Your task to perform on an android device: turn off javascript in the chrome app Image 0: 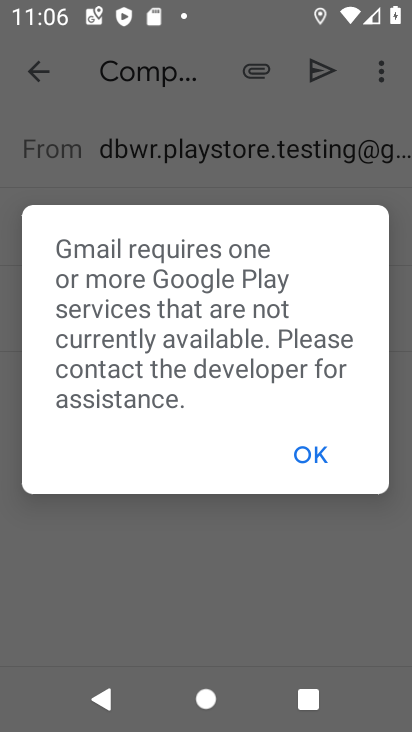
Step 0: click (322, 447)
Your task to perform on an android device: turn off javascript in the chrome app Image 1: 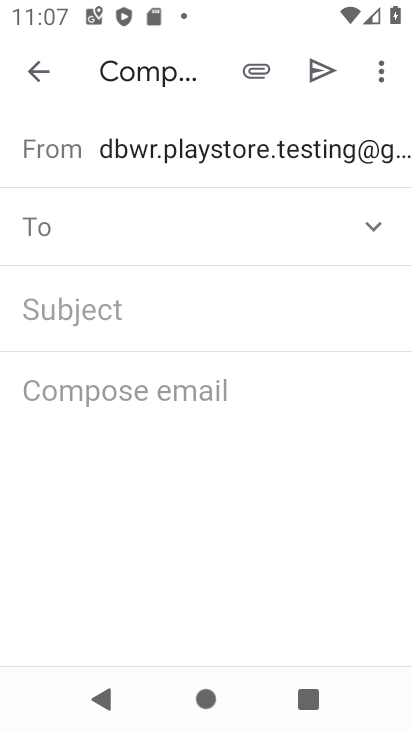
Step 1: press home button
Your task to perform on an android device: turn off javascript in the chrome app Image 2: 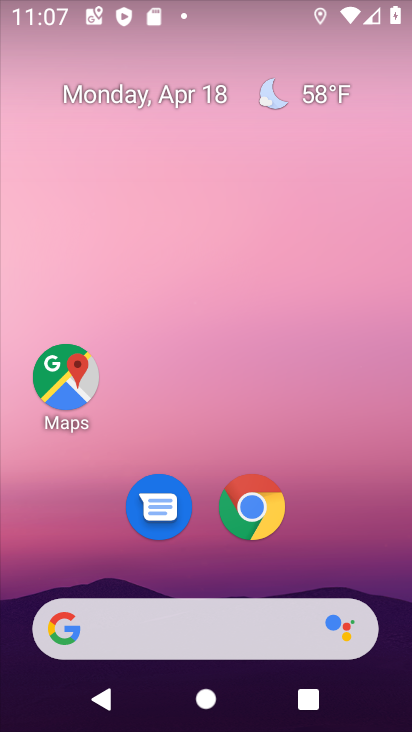
Step 2: click (263, 517)
Your task to perform on an android device: turn off javascript in the chrome app Image 3: 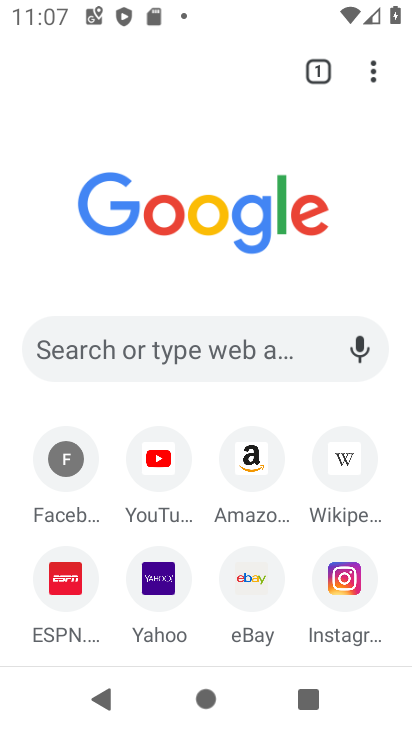
Step 3: click (374, 77)
Your task to perform on an android device: turn off javascript in the chrome app Image 4: 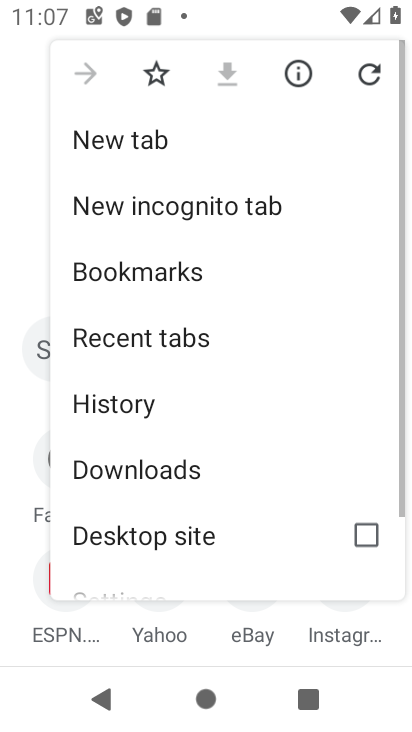
Step 4: drag from (171, 528) to (229, 43)
Your task to perform on an android device: turn off javascript in the chrome app Image 5: 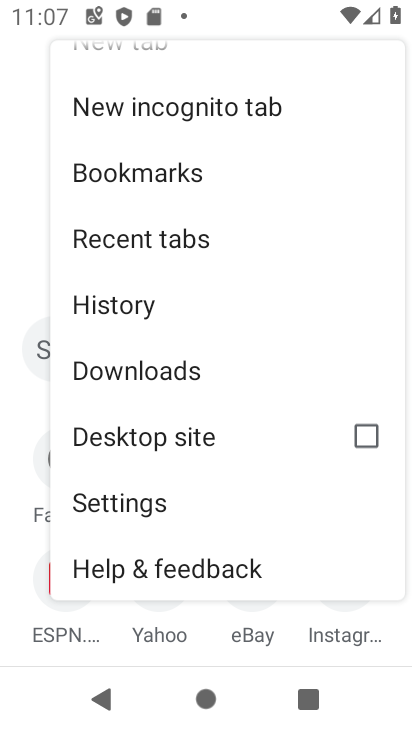
Step 5: click (117, 498)
Your task to perform on an android device: turn off javascript in the chrome app Image 6: 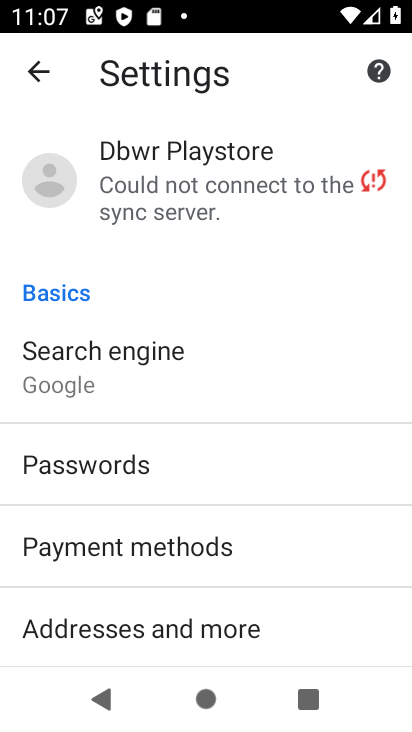
Step 6: drag from (131, 587) to (195, 203)
Your task to perform on an android device: turn off javascript in the chrome app Image 7: 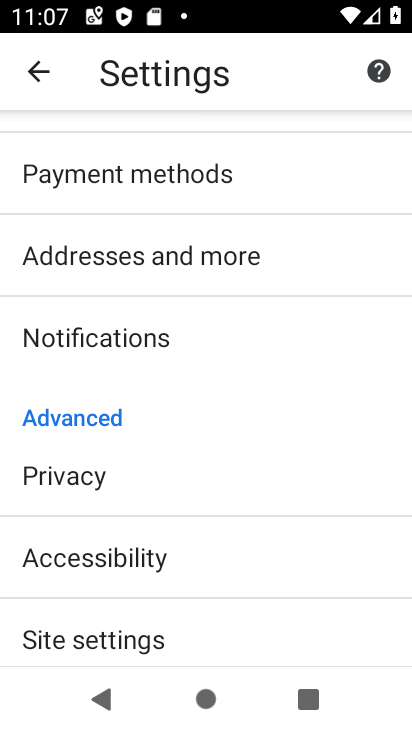
Step 7: drag from (115, 515) to (161, 272)
Your task to perform on an android device: turn off javascript in the chrome app Image 8: 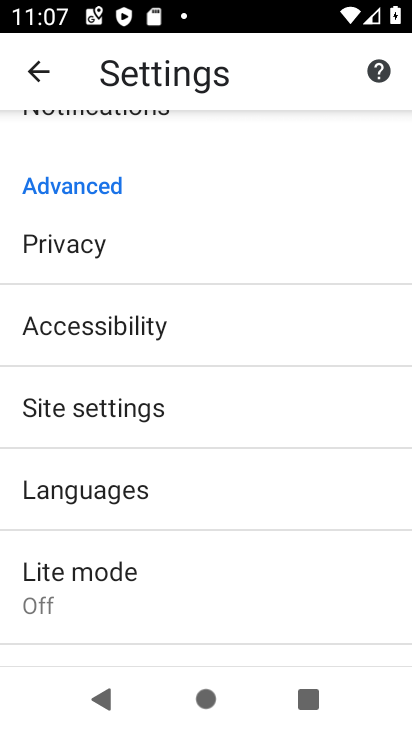
Step 8: click (106, 406)
Your task to perform on an android device: turn off javascript in the chrome app Image 9: 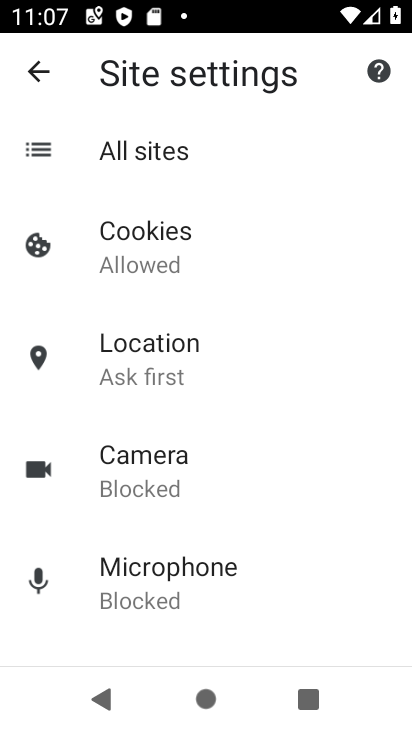
Step 9: drag from (159, 529) to (213, 217)
Your task to perform on an android device: turn off javascript in the chrome app Image 10: 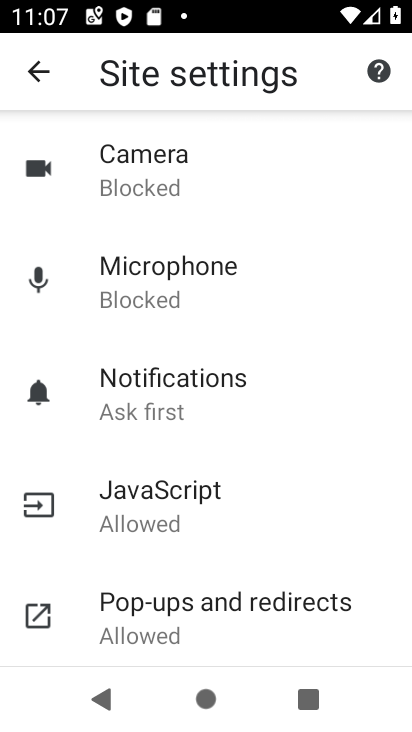
Step 10: click (150, 504)
Your task to perform on an android device: turn off javascript in the chrome app Image 11: 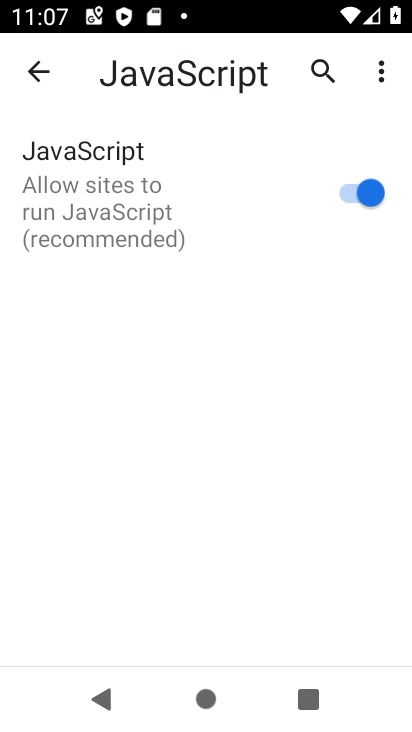
Step 11: click (352, 190)
Your task to perform on an android device: turn off javascript in the chrome app Image 12: 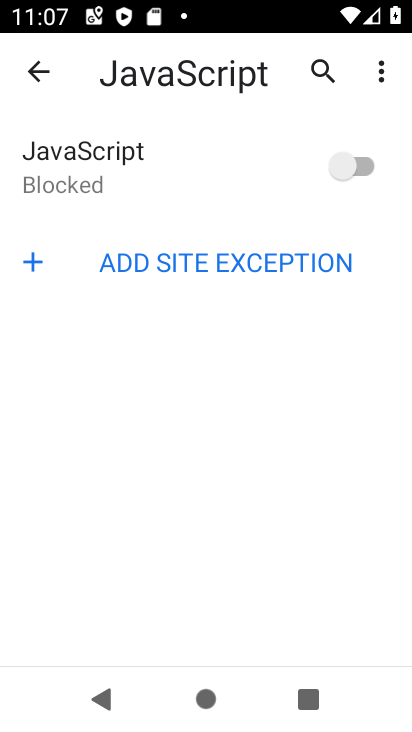
Step 12: task complete